Your task to perform on an android device: Do I have any events today? Image 0: 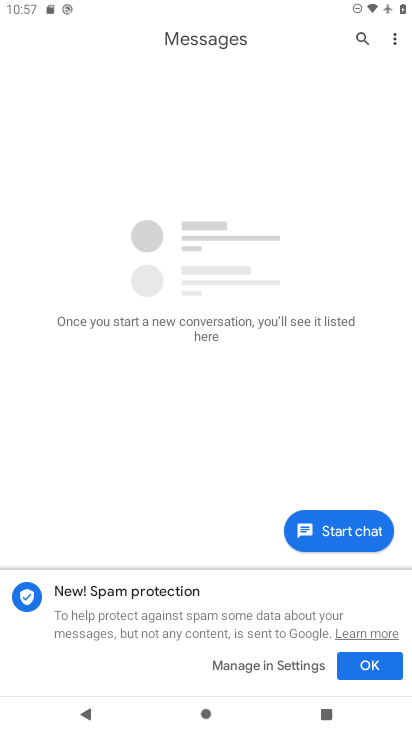
Step 0: press home button
Your task to perform on an android device: Do I have any events today? Image 1: 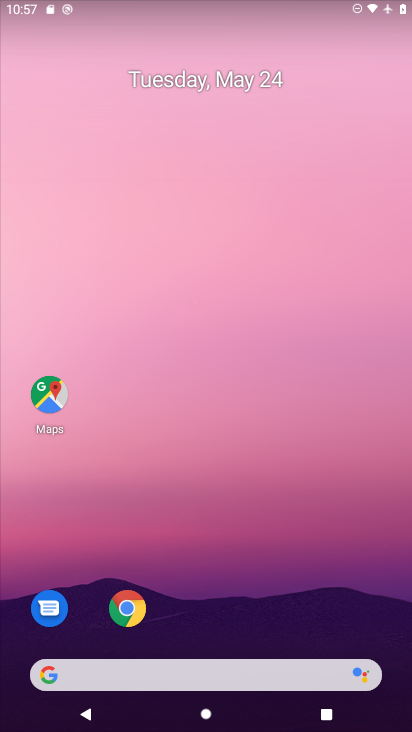
Step 1: drag from (389, 627) to (341, 49)
Your task to perform on an android device: Do I have any events today? Image 2: 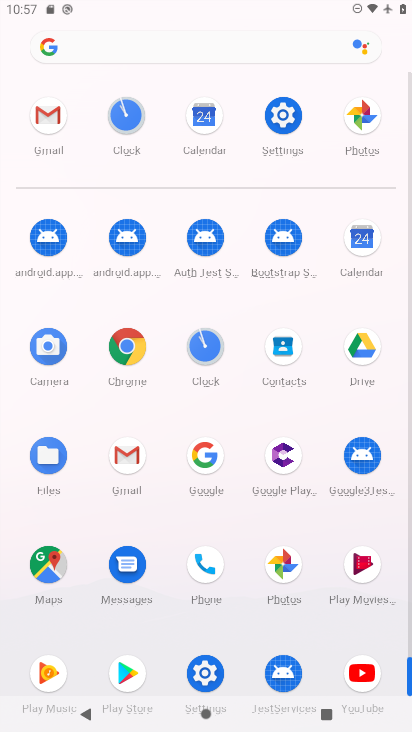
Step 2: click (360, 240)
Your task to perform on an android device: Do I have any events today? Image 3: 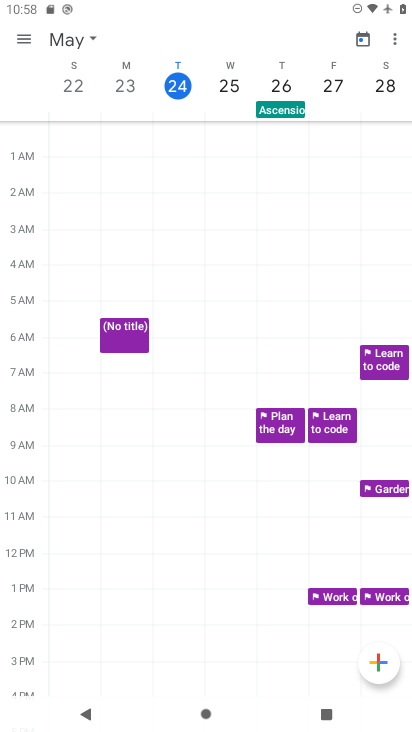
Step 3: click (21, 34)
Your task to perform on an android device: Do I have any events today? Image 4: 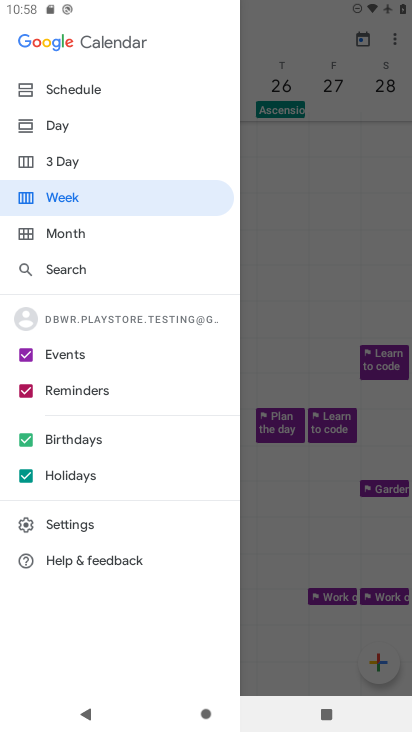
Step 4: click (63, 127)
Your task to perform on an android device: Do I have any events today? Image 5: 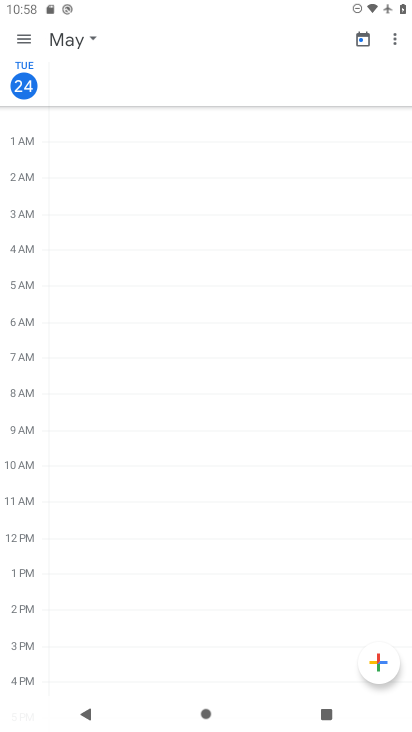
Step 5: click (92, 39)
Your task to perform on an android device: Do I have any events today? Image 6: 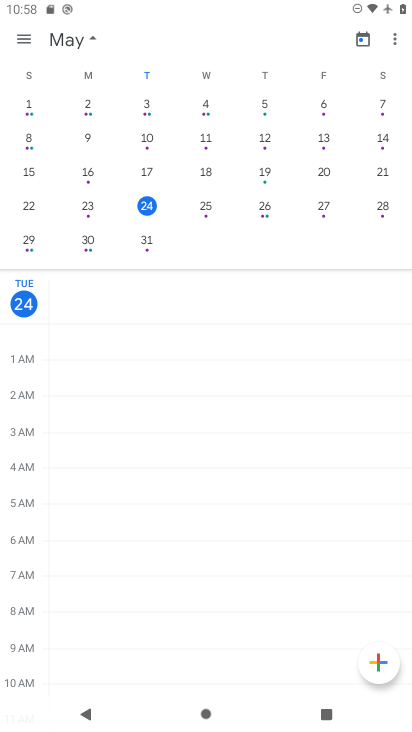
Step 6: task complete